Your task to perform on an android device: Open my contact list Image 0: 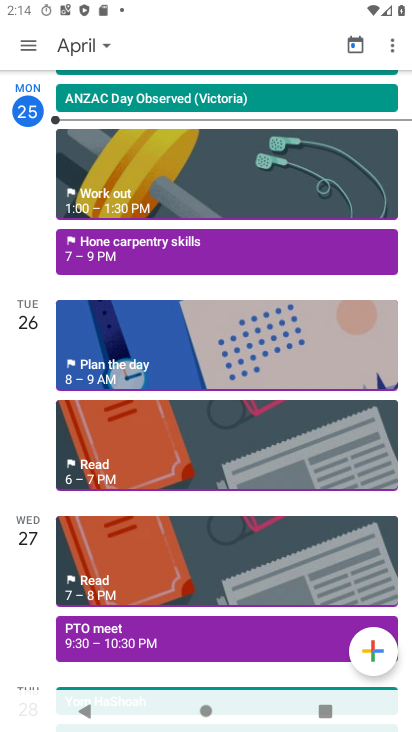
Step 0: press home button
Your task to perform on an android device: Open my contact list Image 1: 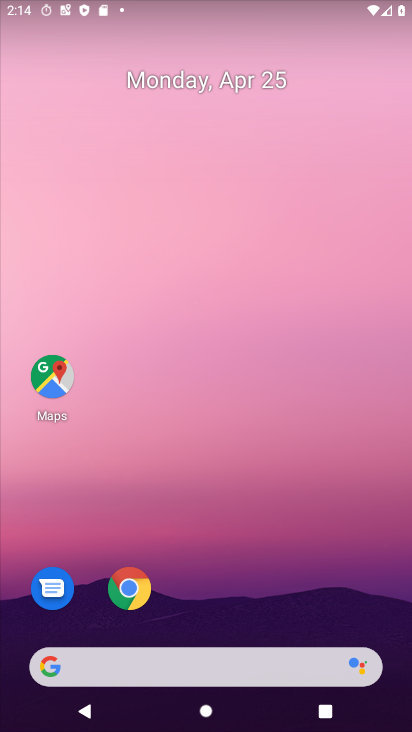
Step 1: drag from (258, 652) to (312, 211)
Your task to perform on an android device: Open my contact list Image 2: 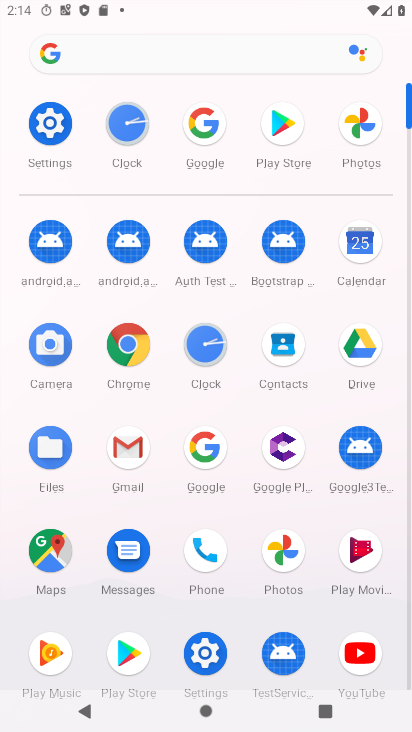
Step 2: click (294, 364)
Your task to perform on an android device: Open my contact list Image 3: 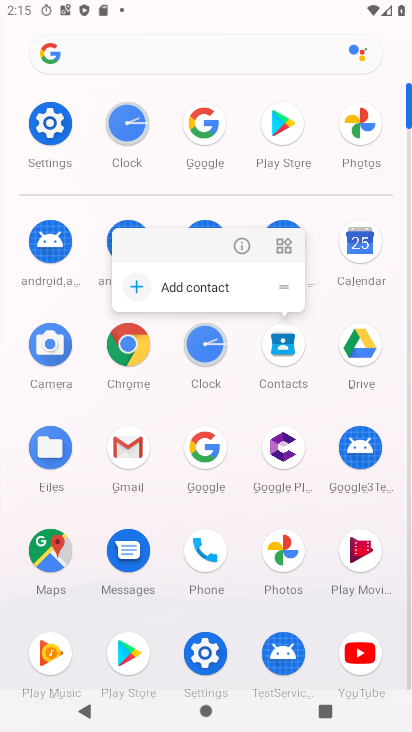
Step 3: click (236, 246)
Your task to perform on an android device: Open my contact list Image 4: 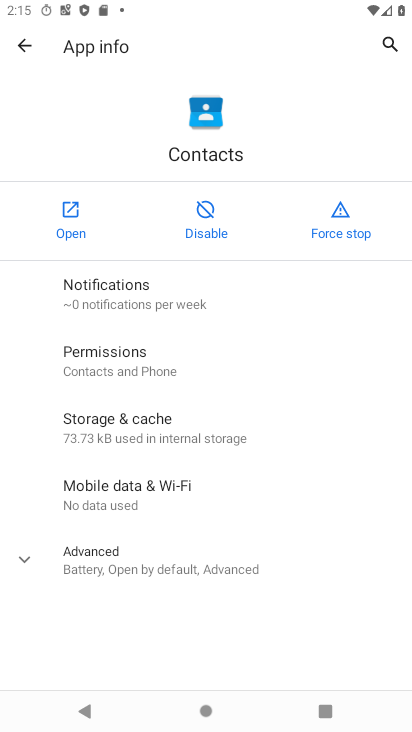
Step 4: click (74, 238)
Your task to perform on an android device: Open my contact list Image 5: 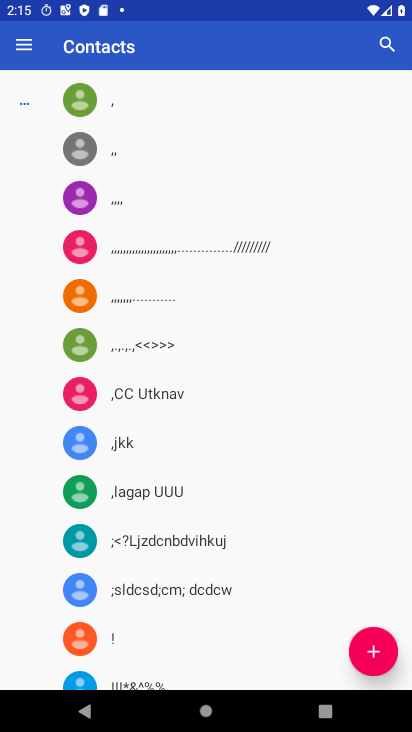
Step 5: task complete